Your task to perform on an android device: Go to Android settings Image 0: 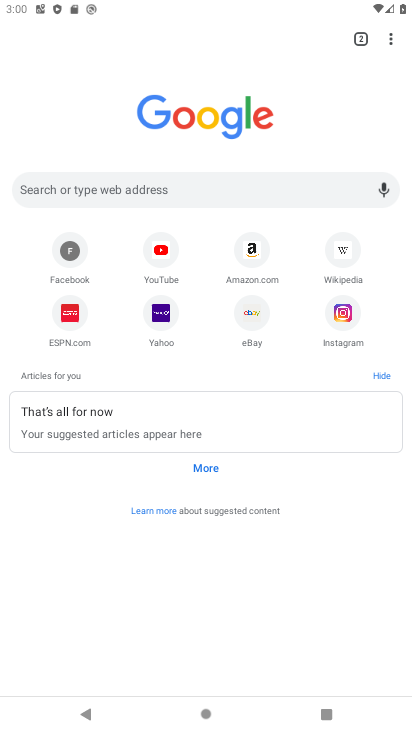
Step 0: press home button
Your task to perform on an android device: Go to Android settings Image 1: 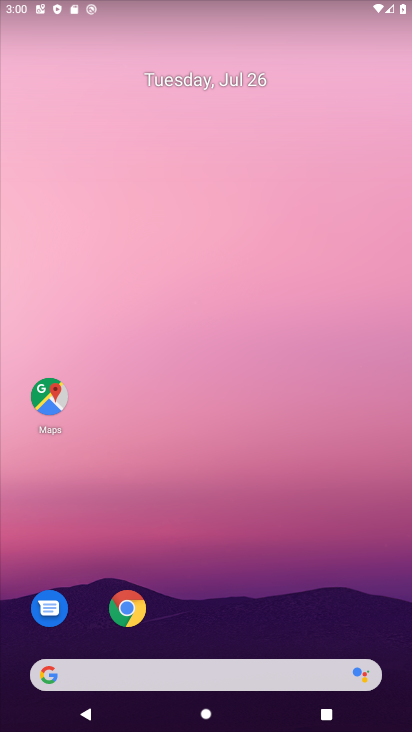
Step 1: drag from (302, 495) to (249, 92)
Your task to perform on an android device: Go to Android settings Image 2: 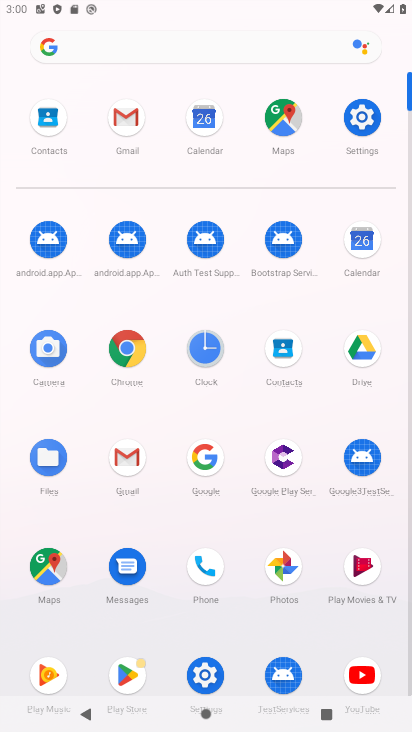
Step 2: click (367, 118)
Your task to perform on an android device: Go to Android settings Image 3: 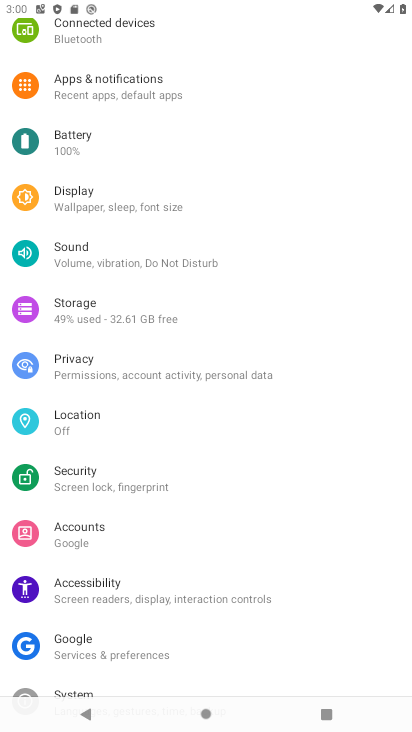
Step 3: drag from (263, 613) to (285, 179)
Your task to perform on an android device: Go to Android settings Image 4: 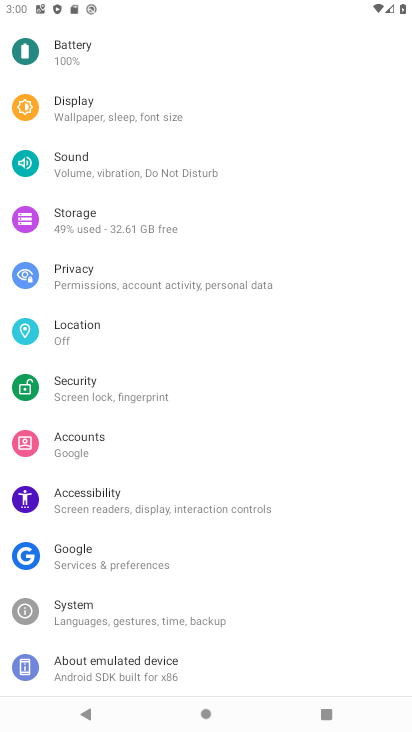
Step 4: click (124, 667)
Your task to perform on an android device: Go to Android settings Image 5: 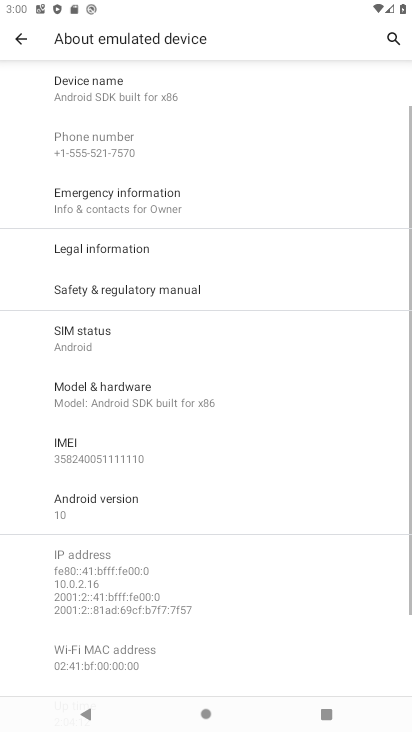
Step 5: task complete